Your task to perform on an android device: refresh tabs in the chrome app Image 0: 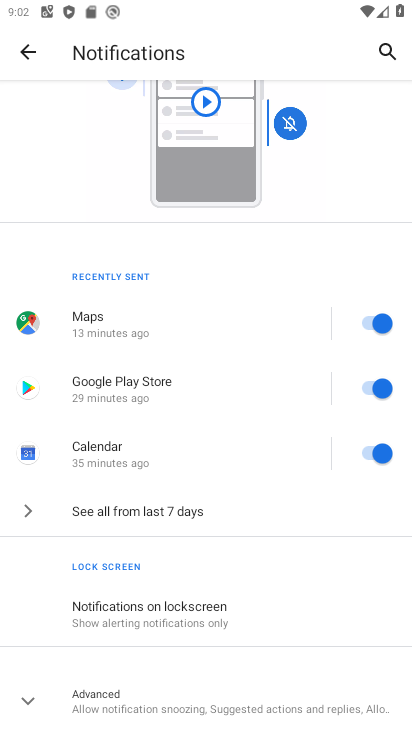
Step 0: press home button
Your task to perform on an android device: refresh tabs in the chrome app Image 1: 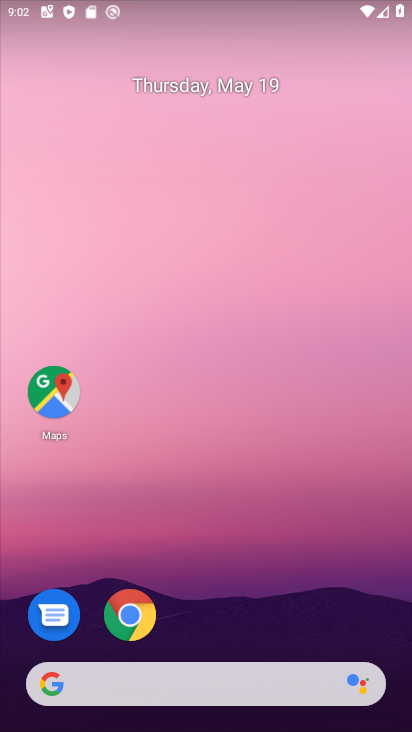
Step 1: drag from (249, 208) to (251, 98)
Your task to perform on an android device: refresh tabs in the chrome app Image 2: 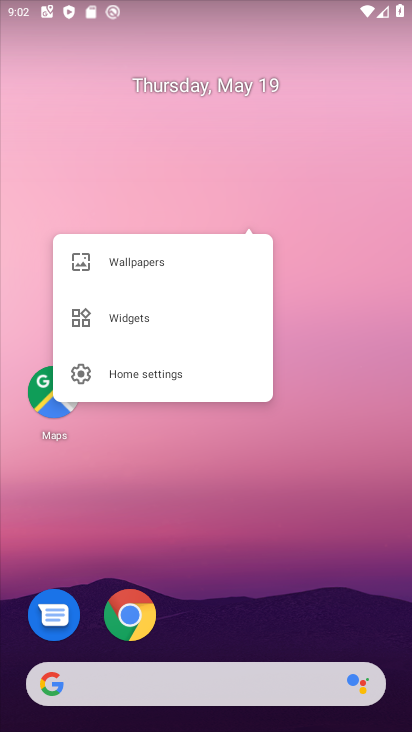
Step 2: click (233, 630)
Your task to perform on an android device: refresh tabs in the chrome app Image 3: 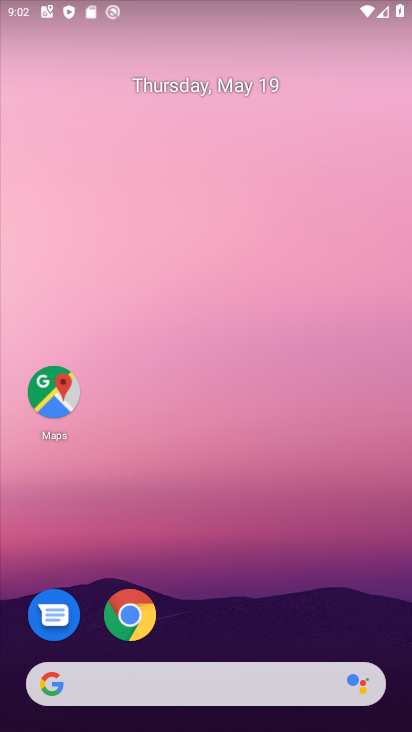
Step 3: click (122, 619)
Your task to perform on an android device: refresh tabs in the chrome app Image 4: 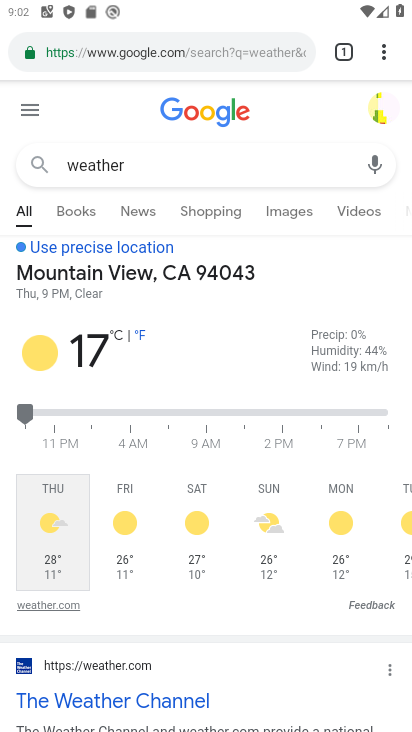
Step 4: click (380, 51)
Your task to perform on an android device: refresh tabs in the chrome app Image 5: 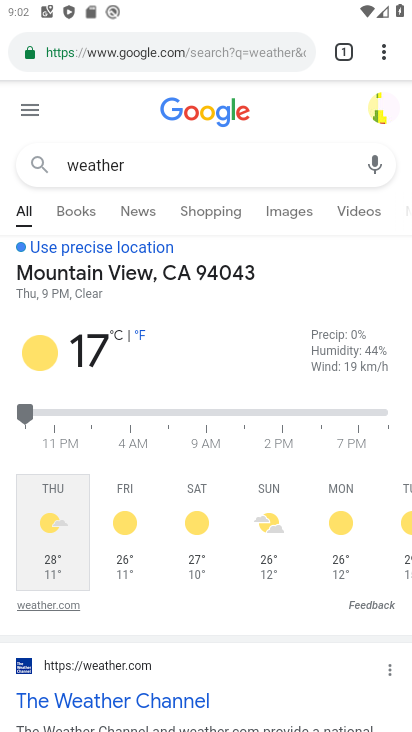
Step 5: task complete